Your task to perform on an android device: turn on javascript in the chrome app Image 0: 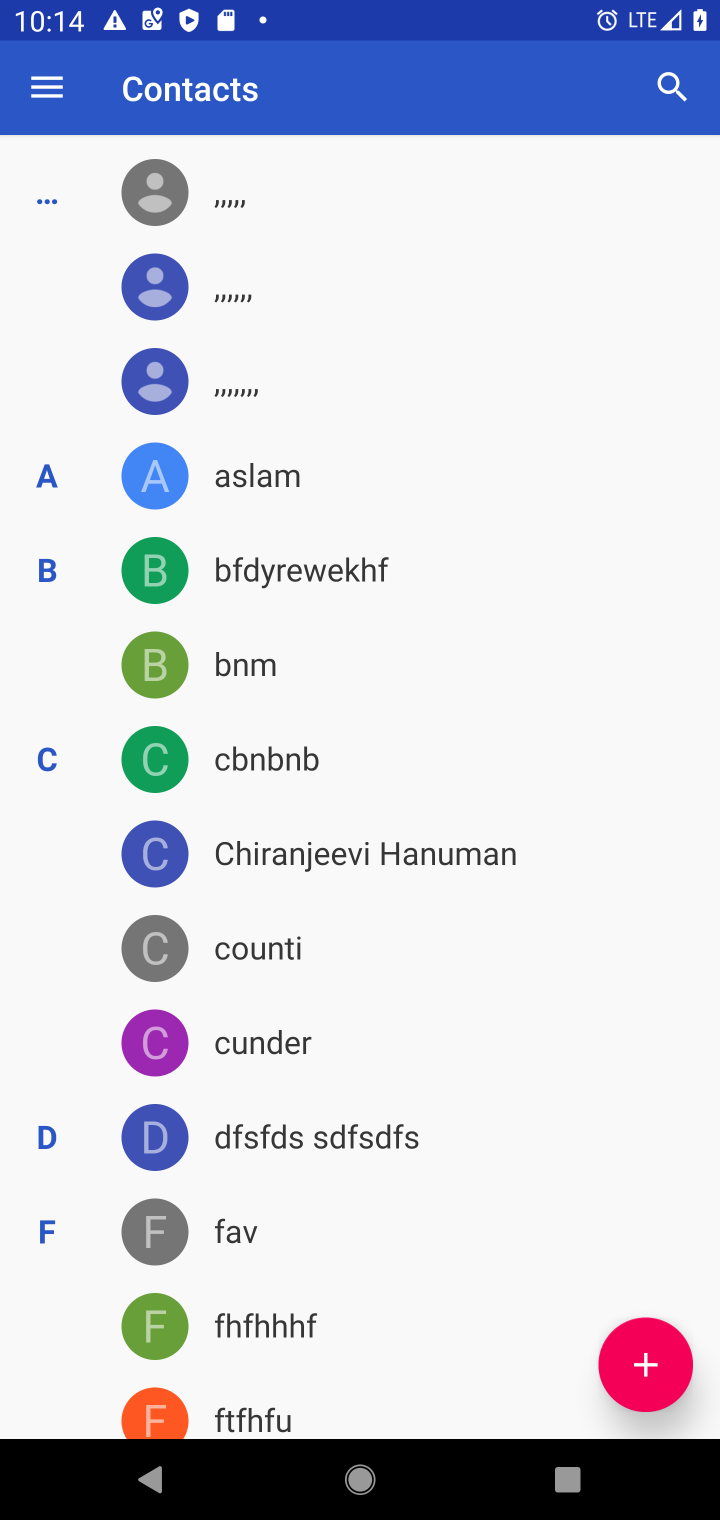
Step 0: press home button
Your task to perform on an android device: turn on javascript in the chrome app Image 1: 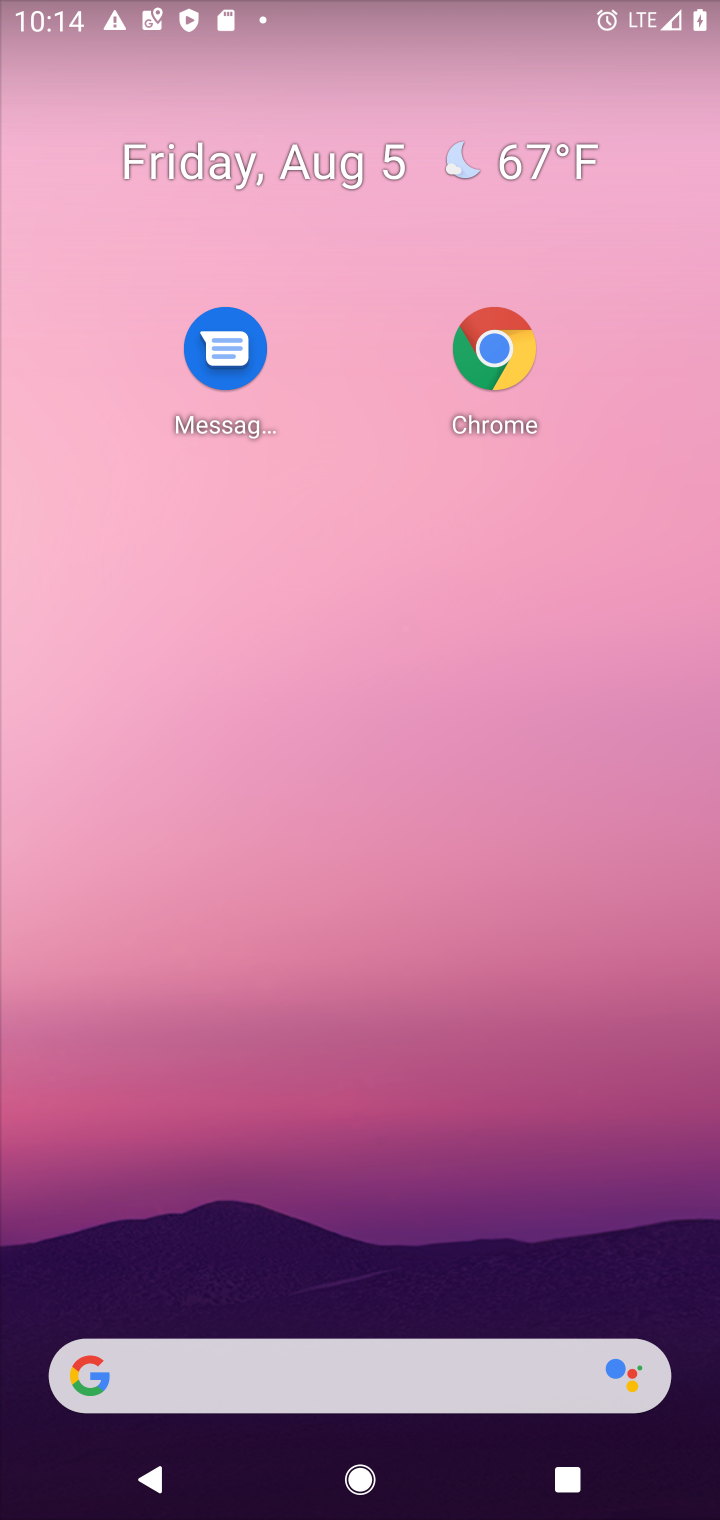
Step 1: drag from (472, 1418) to (437, 238)
Your task to perform on an android device: turn on javascript in the chrome app Image 2: 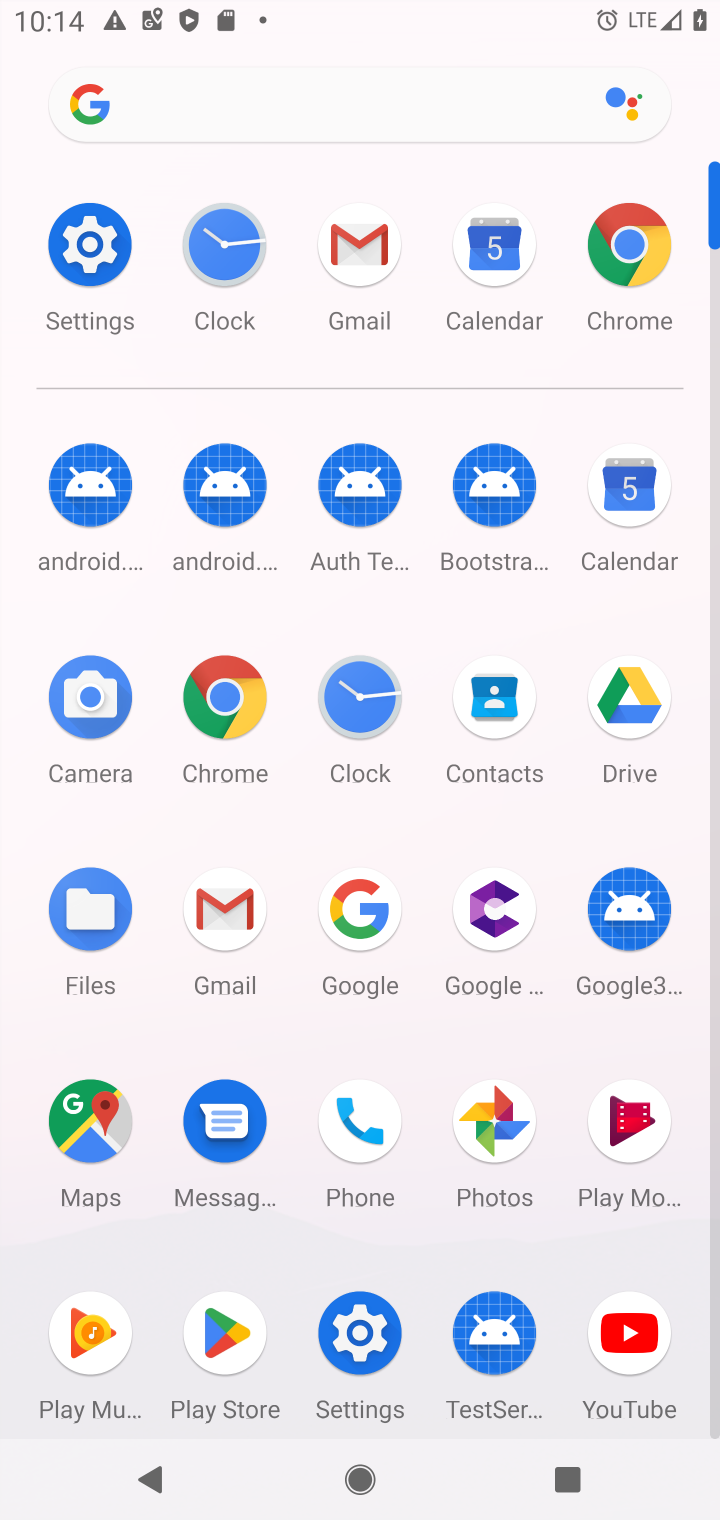
Step 2: click (223, 725)
Your task to perform on an android device: turn on javascript in the chrome app Image 3: 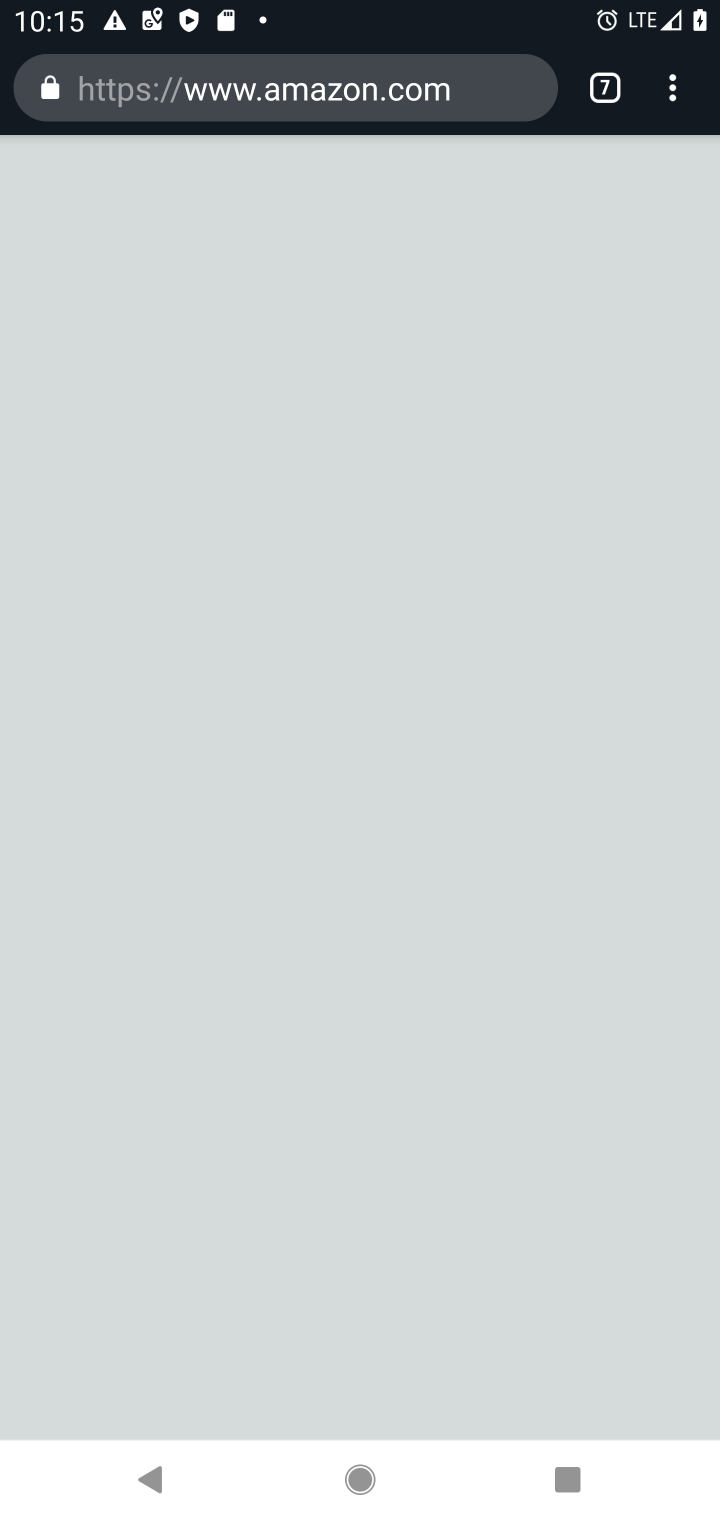
Step 3: click (657, 101)
Your task to perform on an android device: turn on javascript in the chrome app Image 4: 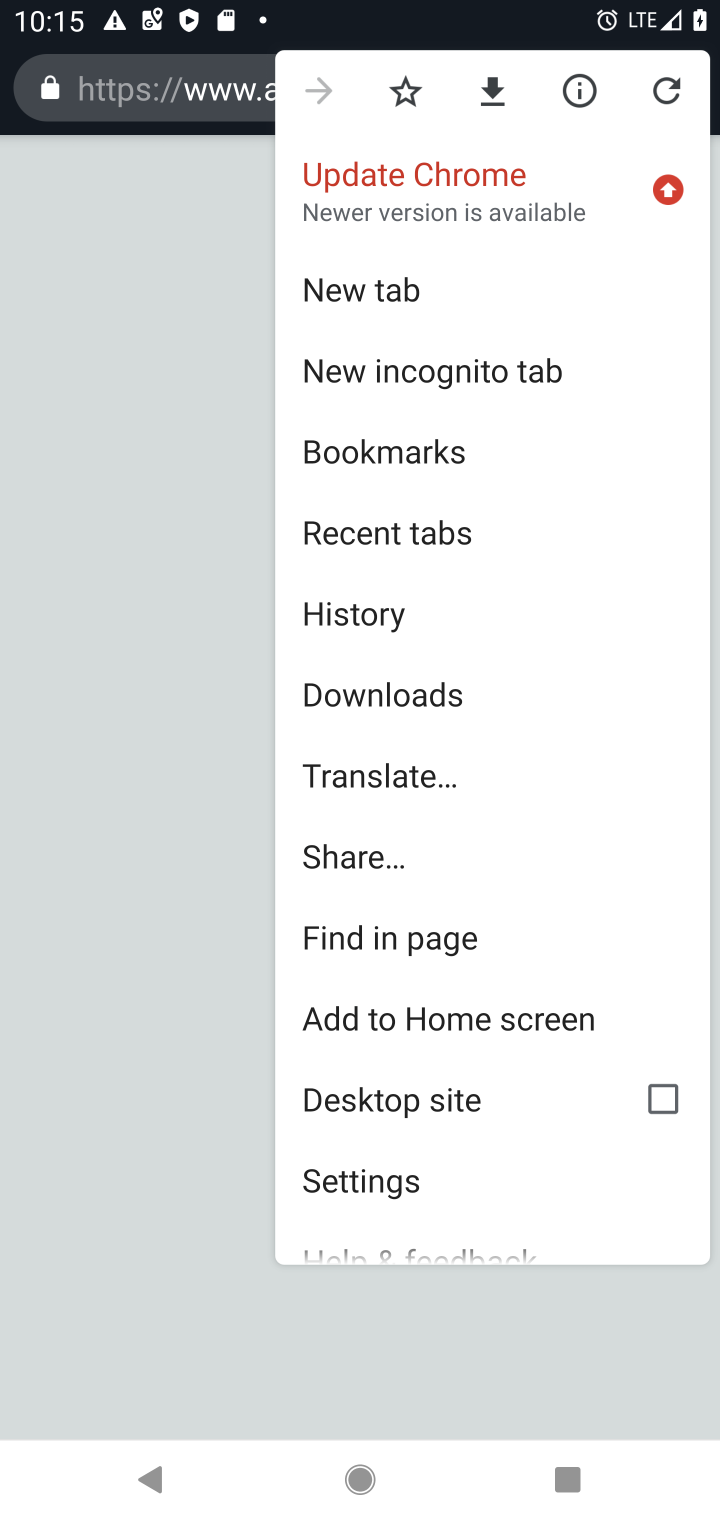
Step 4: click (351, 1182)
Your task to perform on an android device: turn on javascript in the chrome app Image 5: 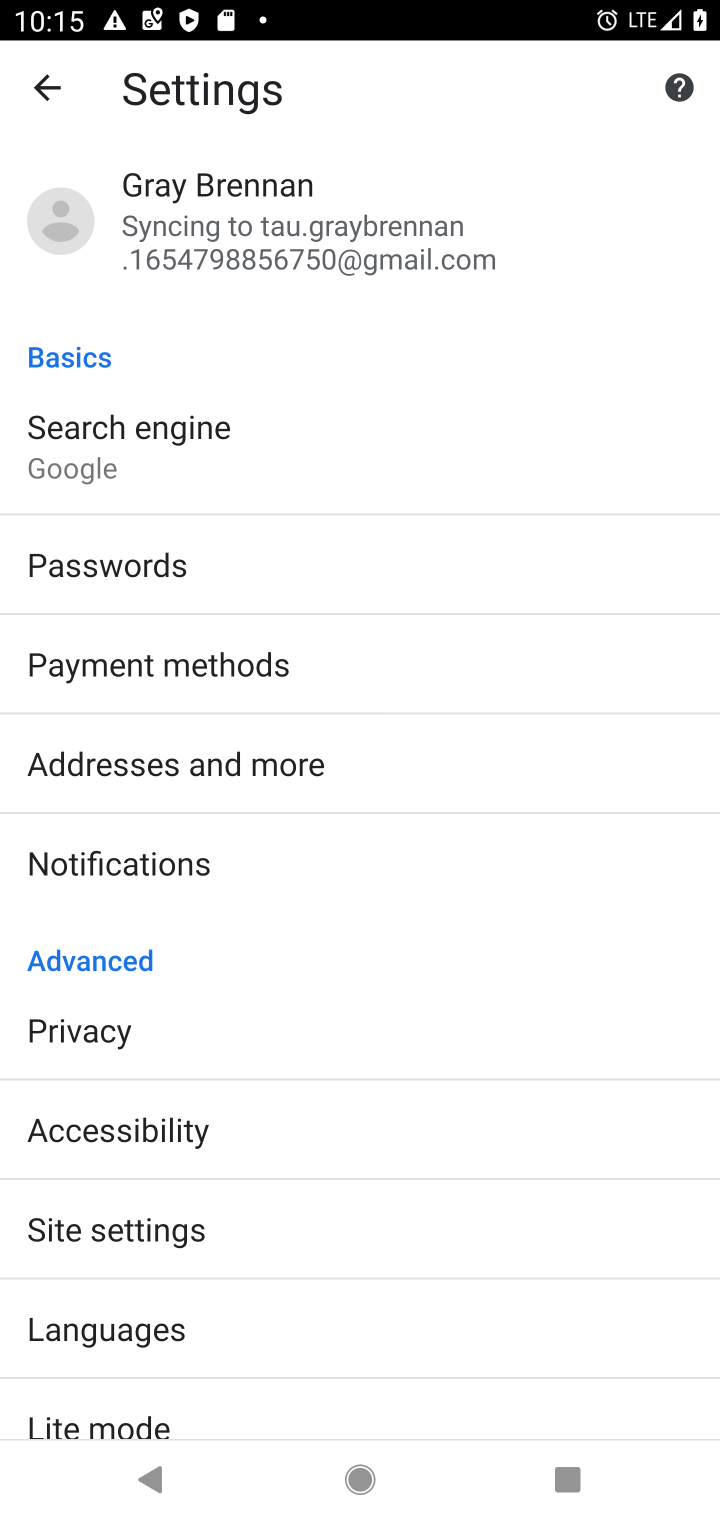
Step 5: click (119, 1236)
Your task to perform on an android device: turn on javascript in the chrome app Image 6: 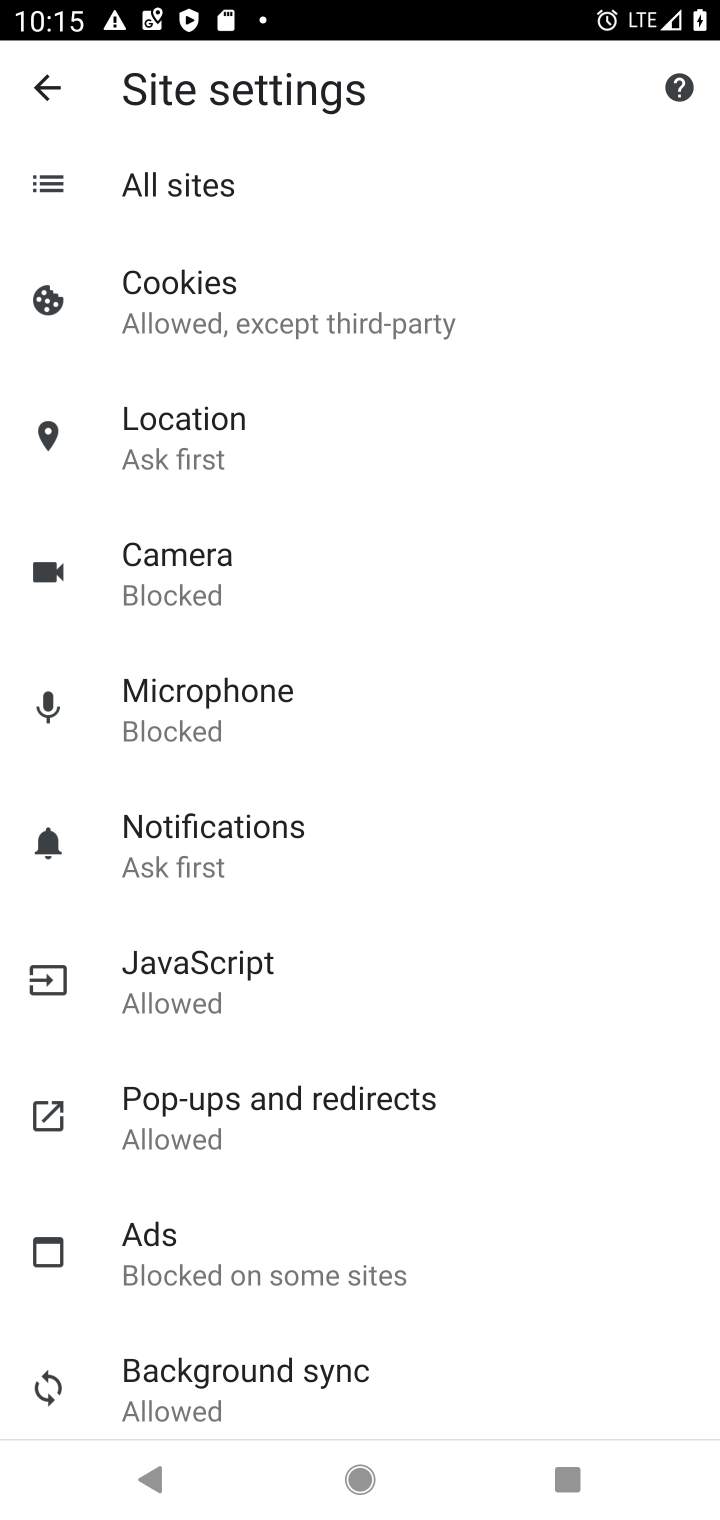
Step 6: click (186, 982)
Your task to perform on an android device: turn on javascript in the chrome app Image 7: 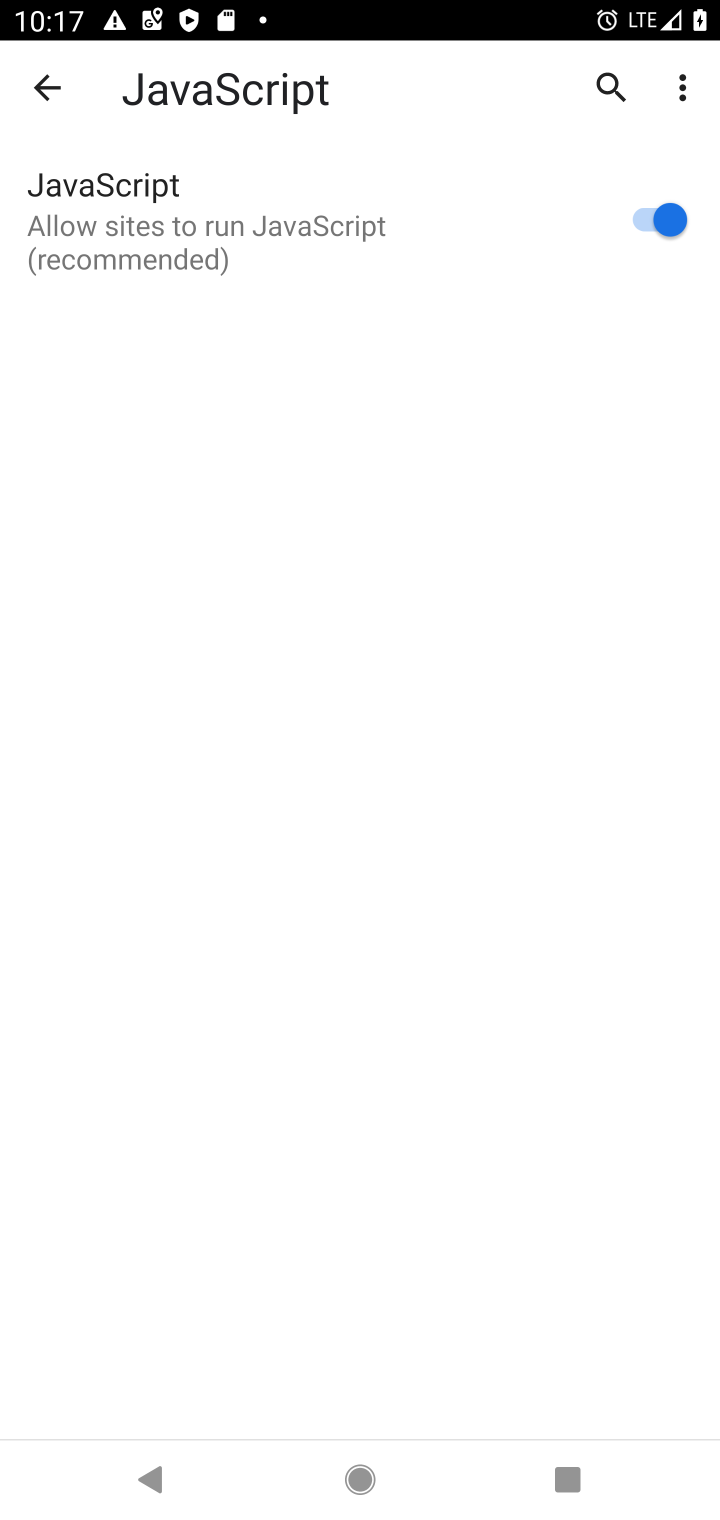
Step 7: task complete